Your task to perform on an android device: Go to internet settings Image 0: 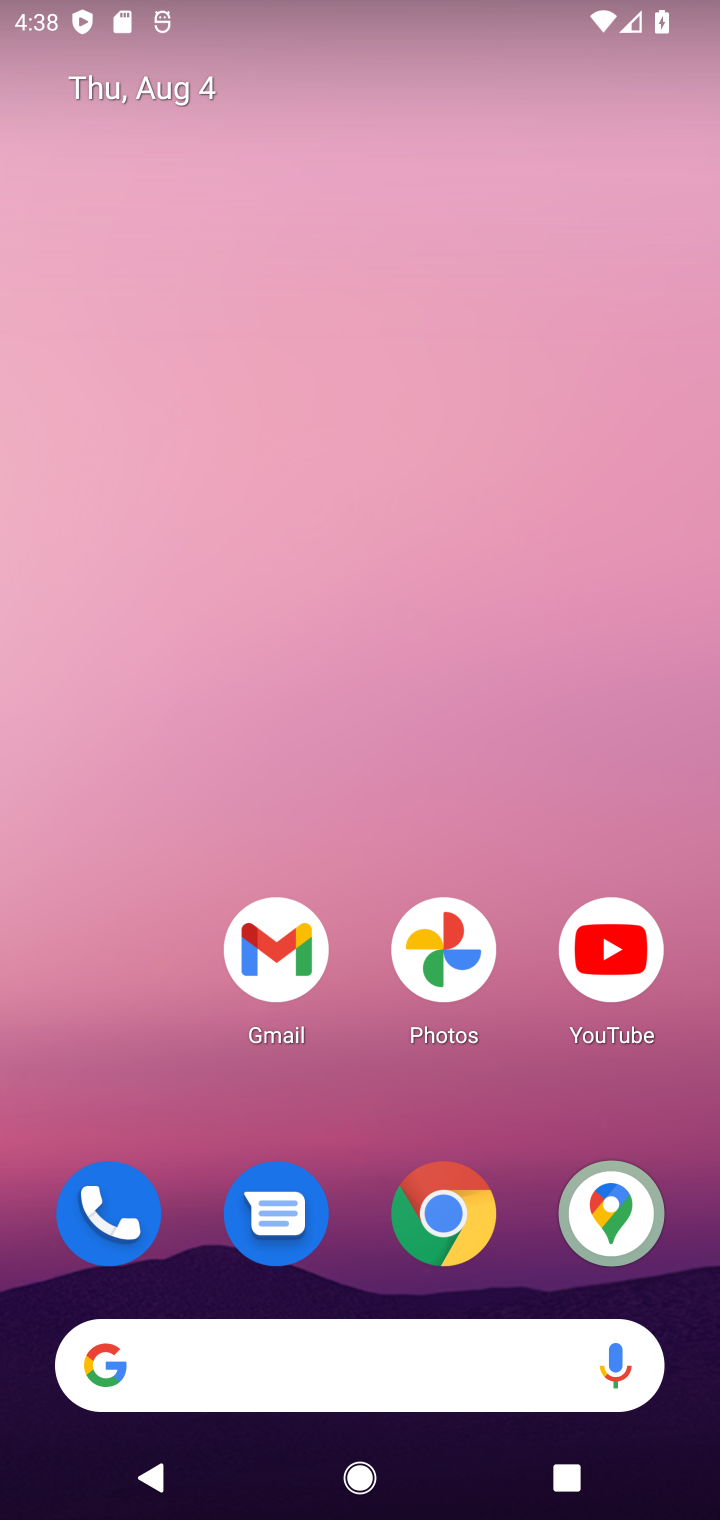
Step 0: drag from (219, 1367) to (146, 146)
Your task to perform on an android device: Go to internet settings Image 1: 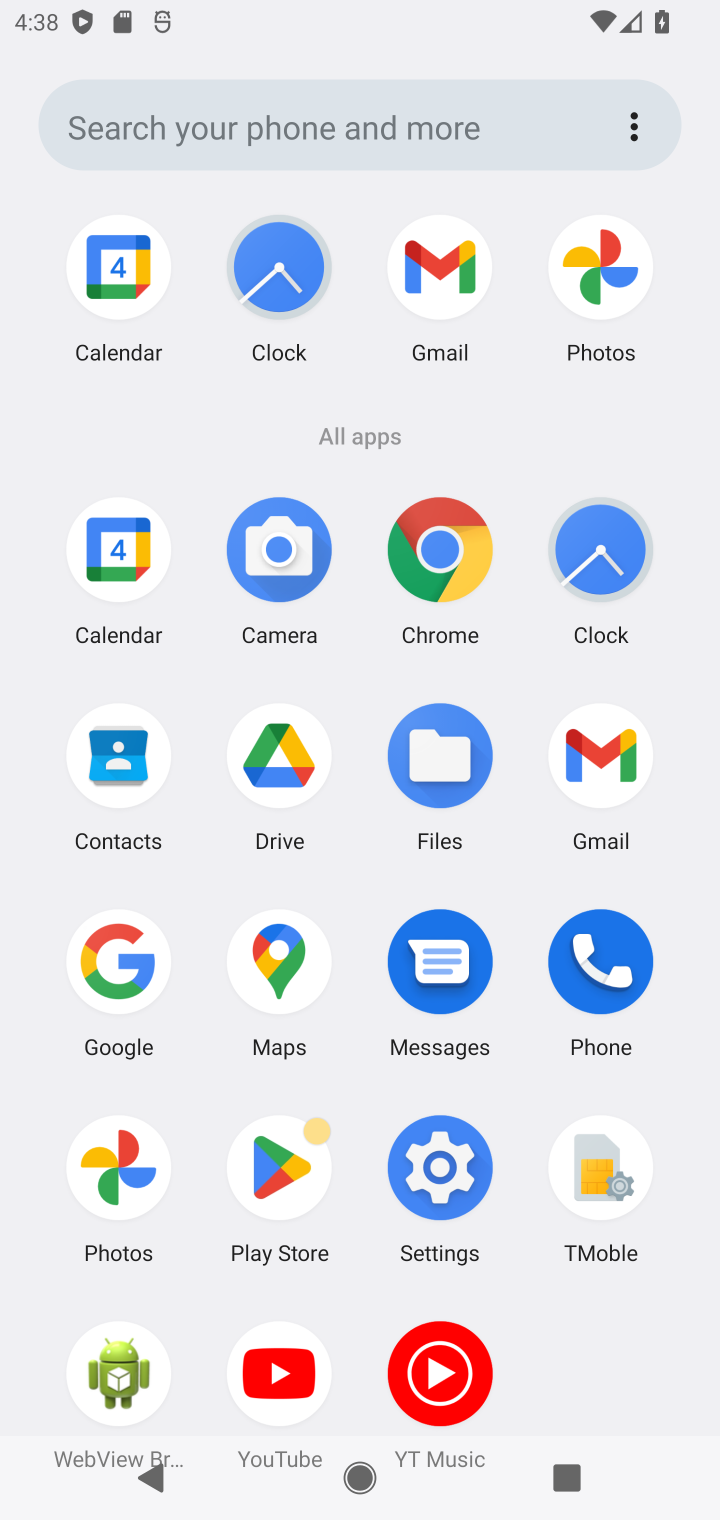
Step 1: click (441, 1166)
Your task to perform on an android device: Go to internet settings Image 2: 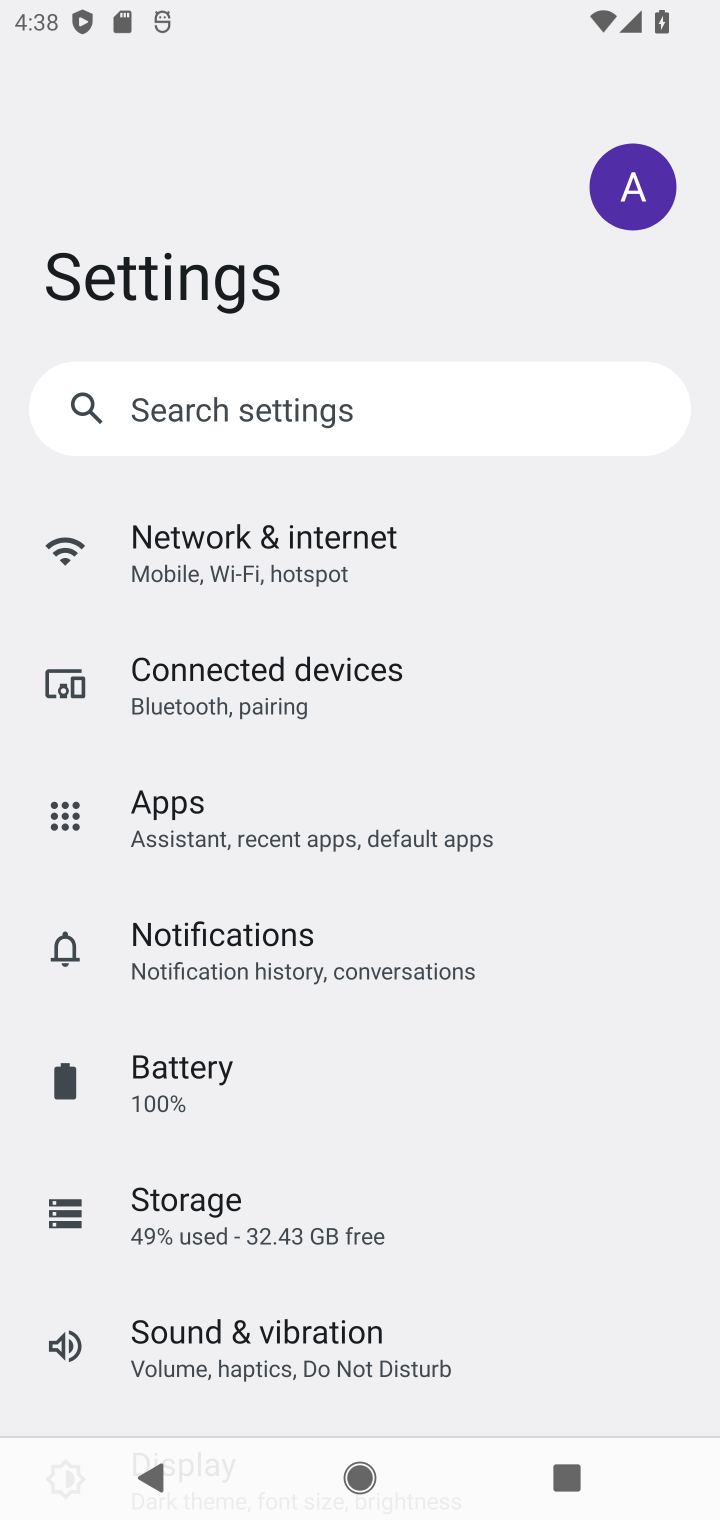
Step 2: click (317, 565)
Your task to perform on an android device: Go to internet settings Image 3: 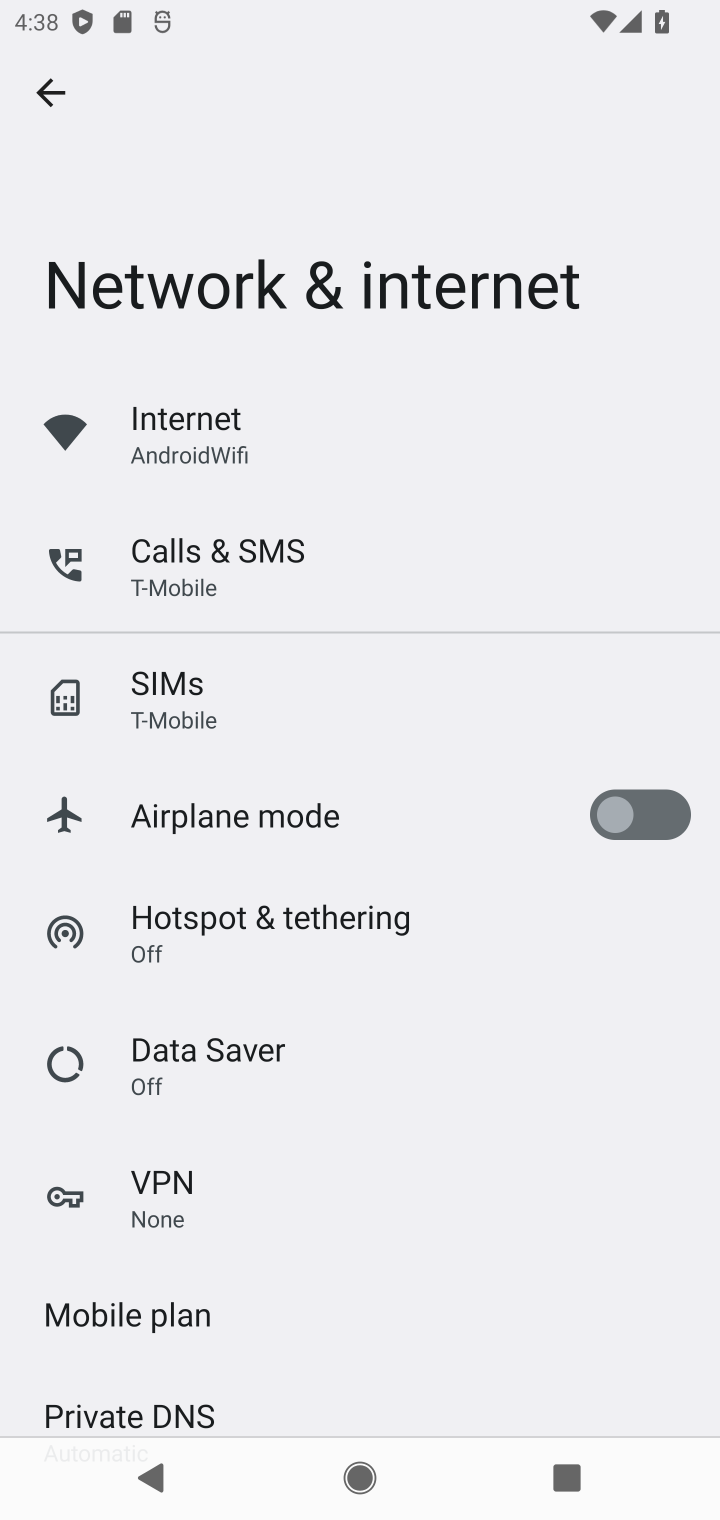
Step 3: click (227, 452)
Your task to perform on an android device: Go to internet settings Image 4: 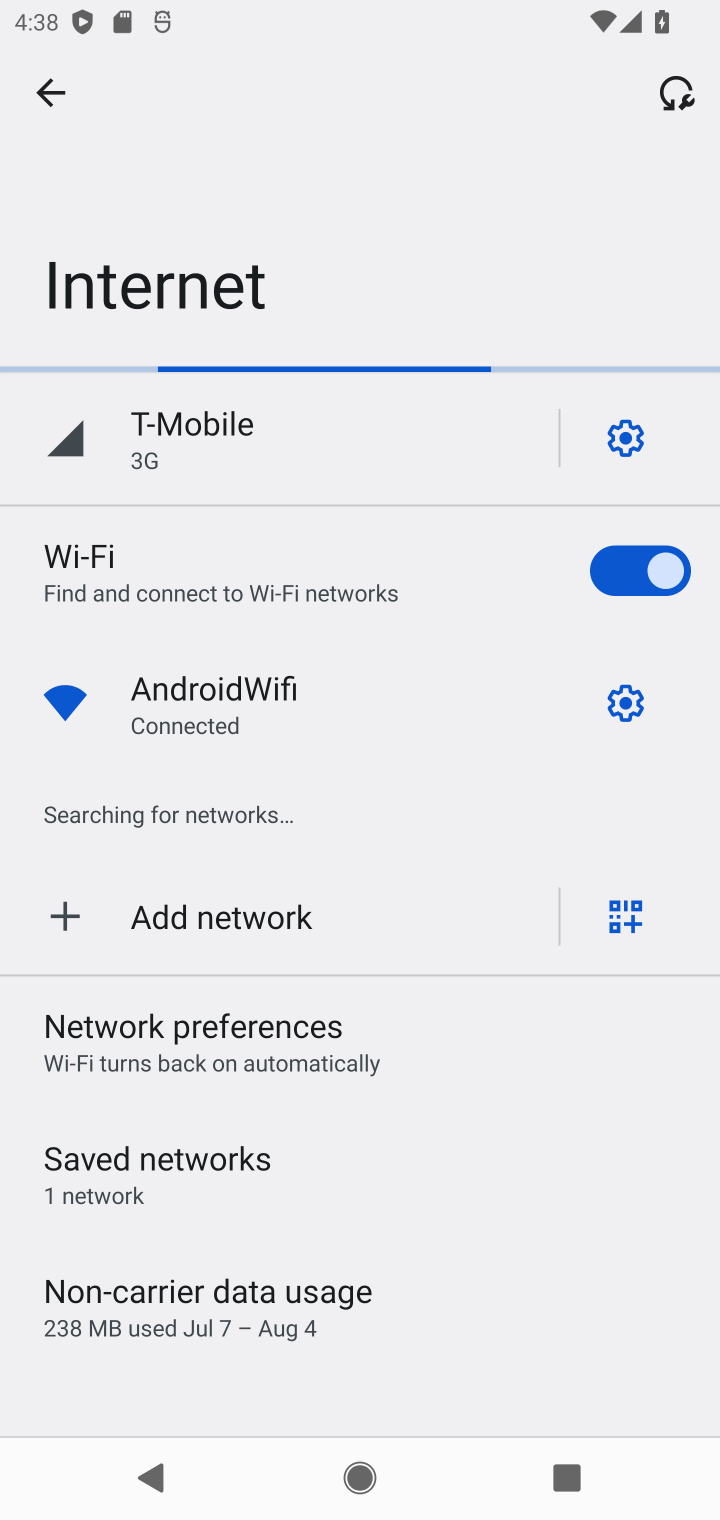
Step 4: click (632, 436)
Your task to perform on an android device: Go to internet settings Image 5: 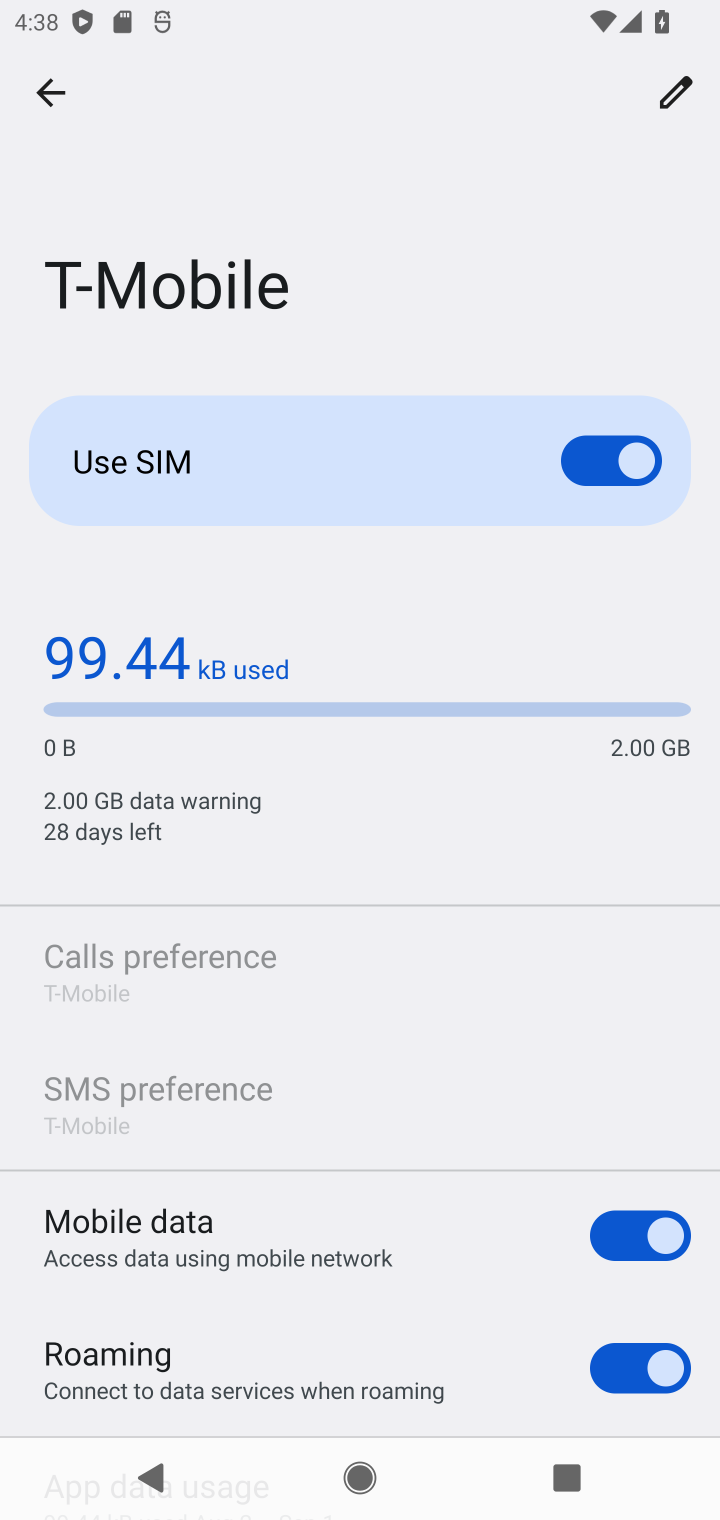
Step 5: task complete